Your task to perform on an android device: check storage Image 0: 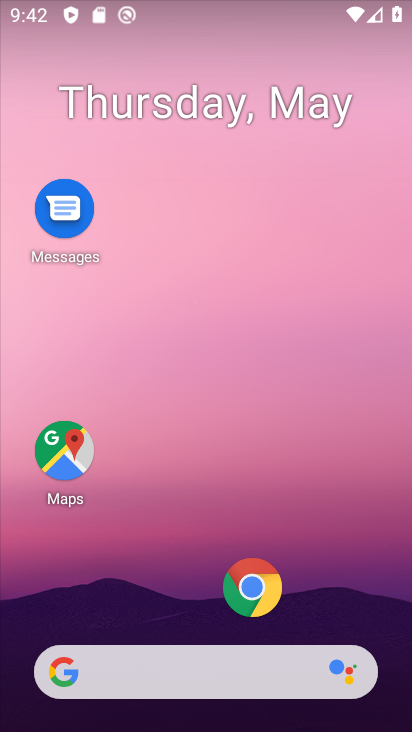
Step 0: drag from (219, 639) to (143, 50)
Your task to perform on an android device: check storage Image 1: 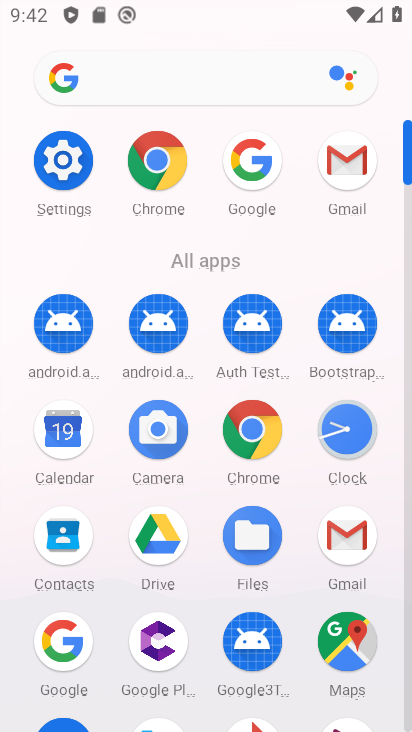
Step 1: click (74, 160)
Your task to perform on an android device: check storage Image 2: 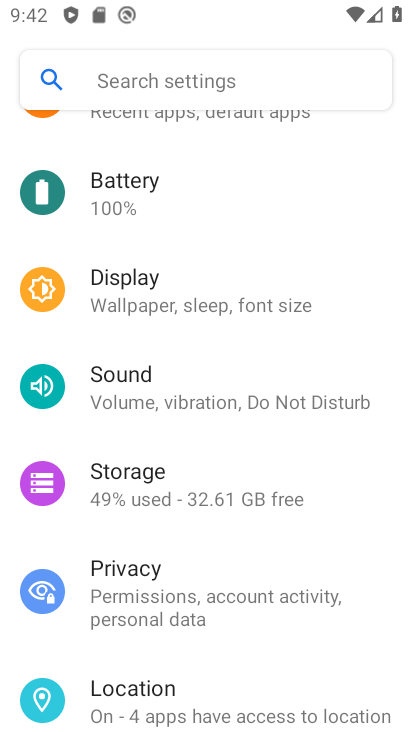
Step 2: click (194, 484)
Your task to perform on an android device: check storage Image 3: 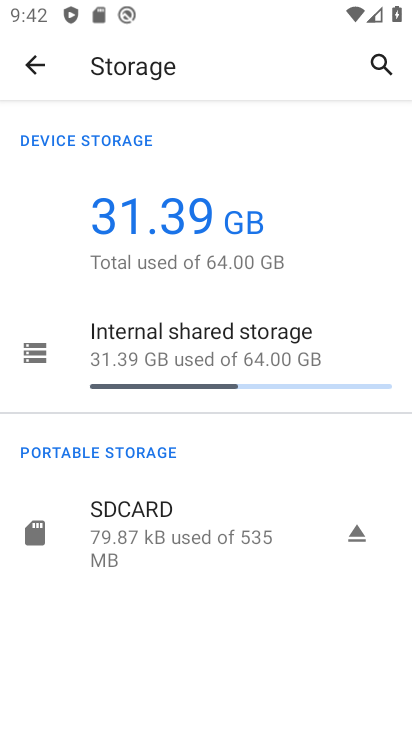
Step 3: task complete